Your task to perform on an android device: open chrome and create a bookmark for the current page Image 0: 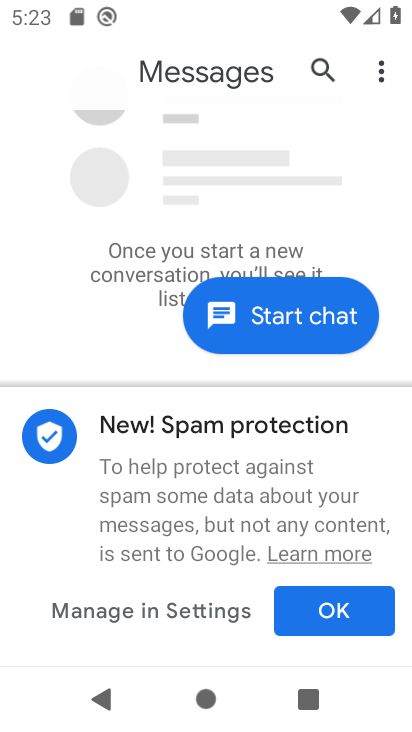
Step 0: press home button
Your task to perform on an android device: open chrome and create a bookmark for the current page Image 1: 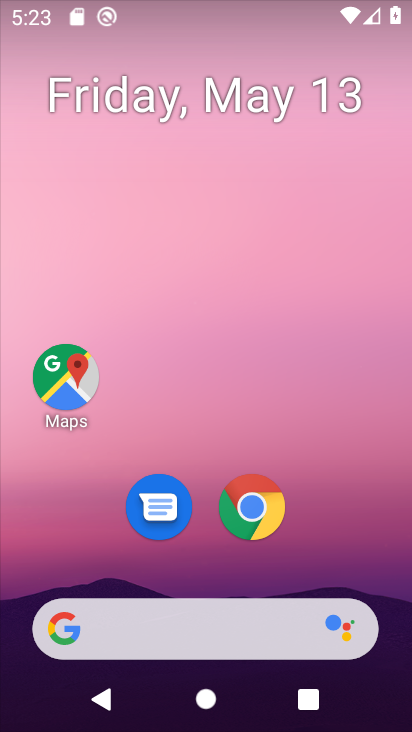
Step 1: drag from (339, 561) to (187, 141)
Your task to perform on an android device: open chrome and create a bookmark for the current page Image 2: 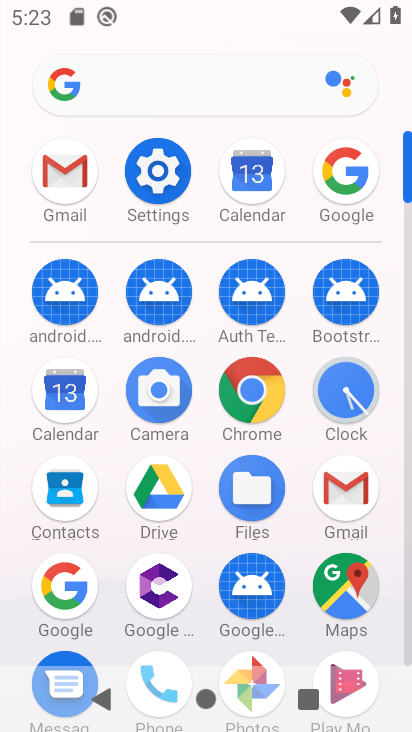
Step 2: click (249, 383)
Your task to perform on an android device: open chrome and create a bookmark for the current page Image 3: 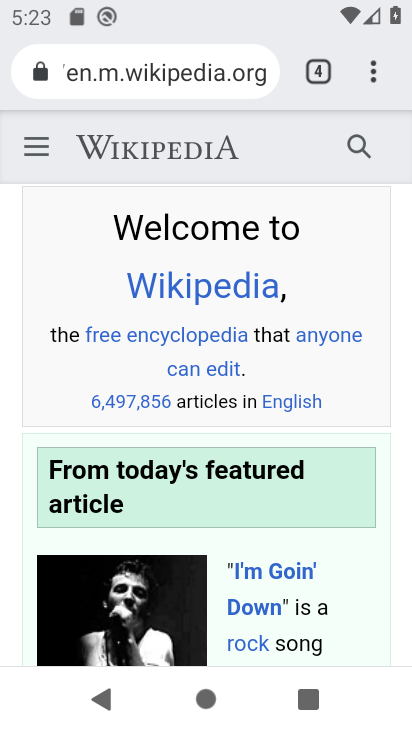
Step 3: click (370, 76)
Your task to perform on an android device: open chrome and create a bookmark for the current page Image 4: 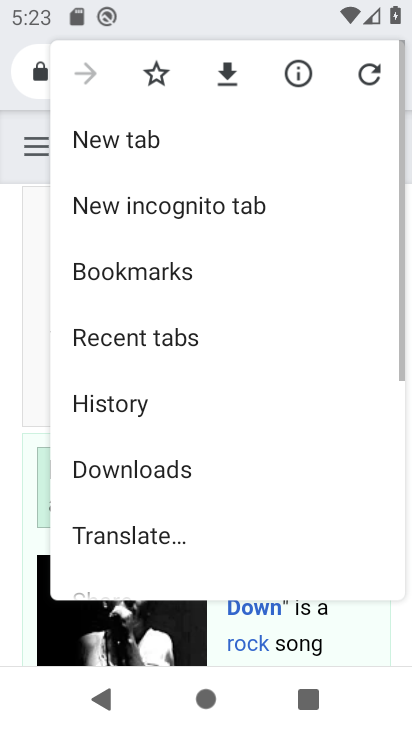
Step 4: click (153, 74)
Your task to perform on an android device: open chrome and create a bookmark for the current page Image 5: 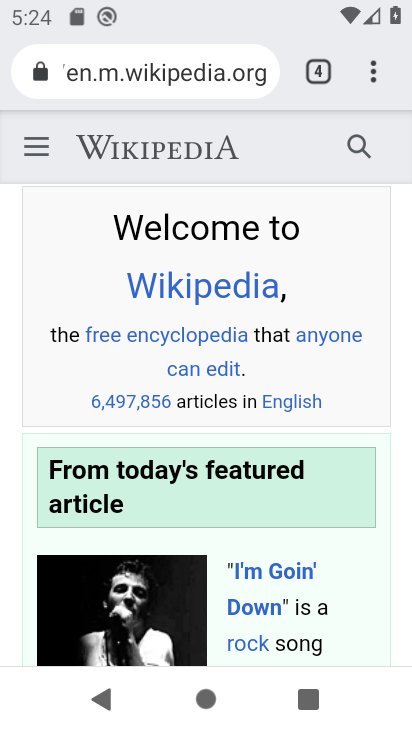
Step 5: task complete